Your task to perform on an android device: toggle data saver in the chrome app Image 0: 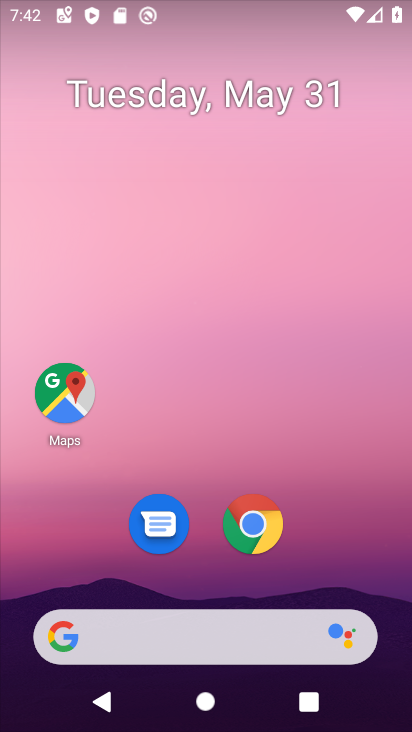
Step 0: click (260, 518)
Your task to perform on an android device: toggle data saver in the chrome app Image 1: 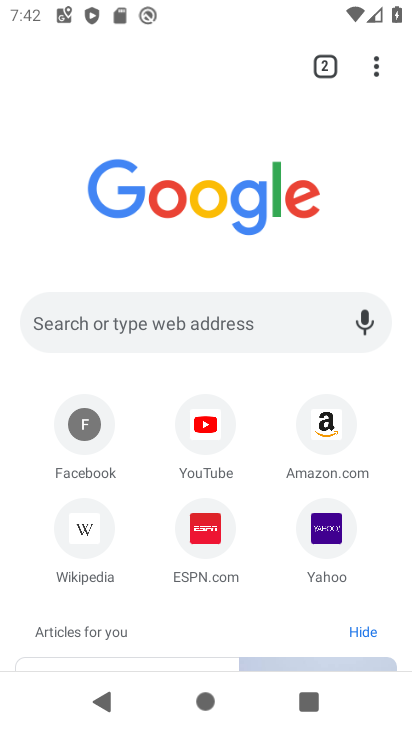
Step 1: click (381, 67)
Your task to perform on an android device: toggle data saver in the chrome app Image 2: 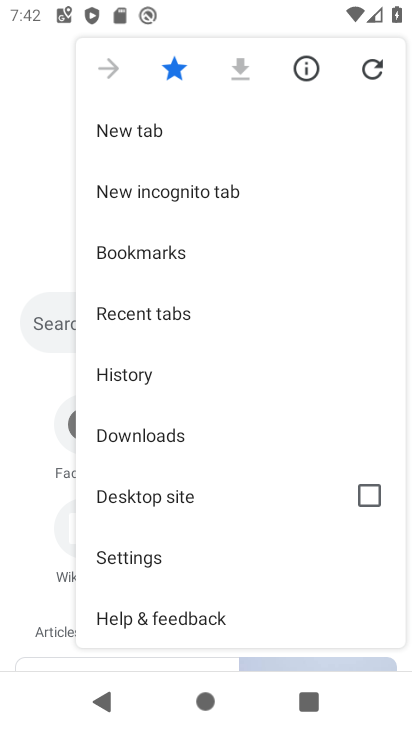
Step 2: click (186, 551)
Your task to perform on an android device: toggle data saver in the chrome app Image 3: 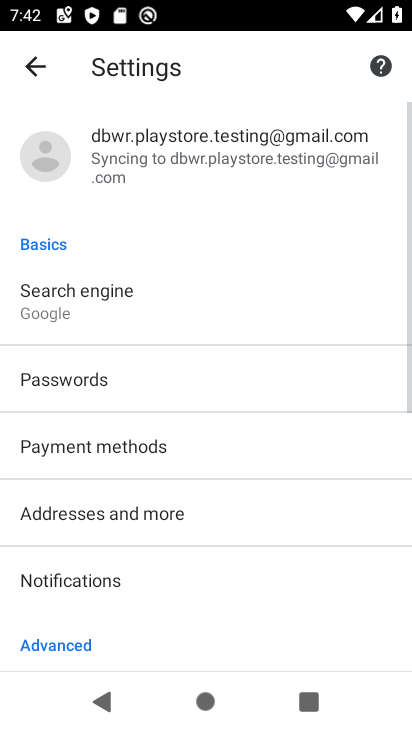
Step 3: drag from (258, 551) to (291, 0)
Your task to perform on an android device: toggle data saver in the chrome app Image 4: 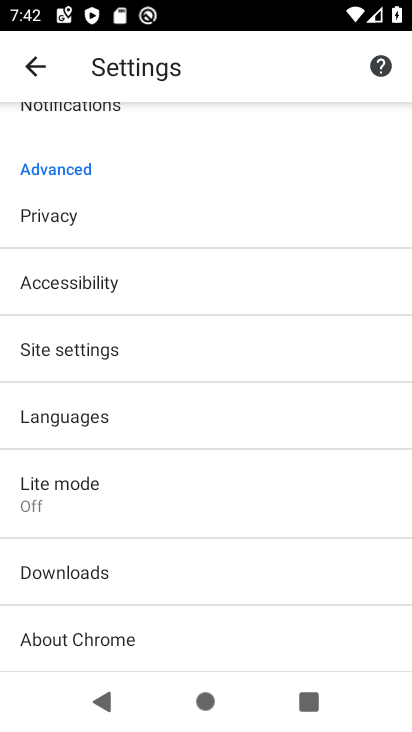
Step 4: click (186, 503)
Your task to perform on an android device: toggle data saver in the chrome app Image 5: 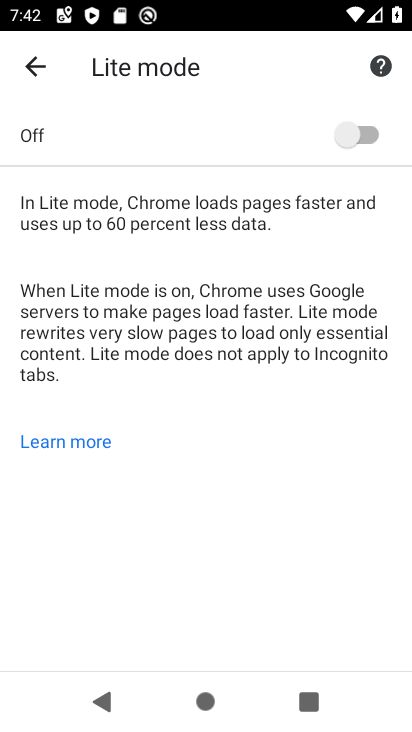
Step 5: click (356, 129)
Your task to perform on an android device: toggle data saver in the chrome app Image 6: 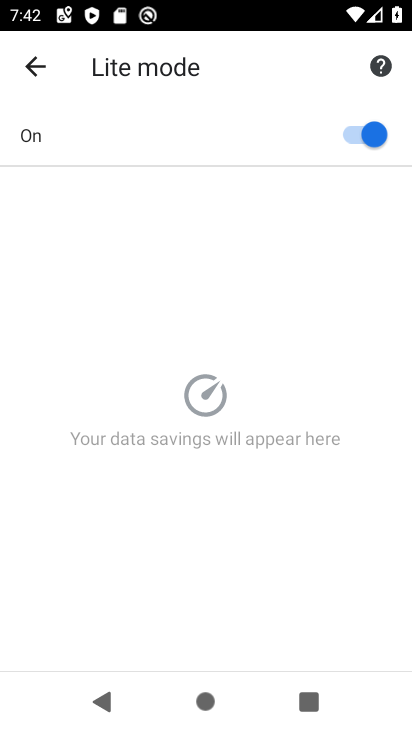
Step 6: task complete